Your task to perform on an android device: Open my contact list Image 0: 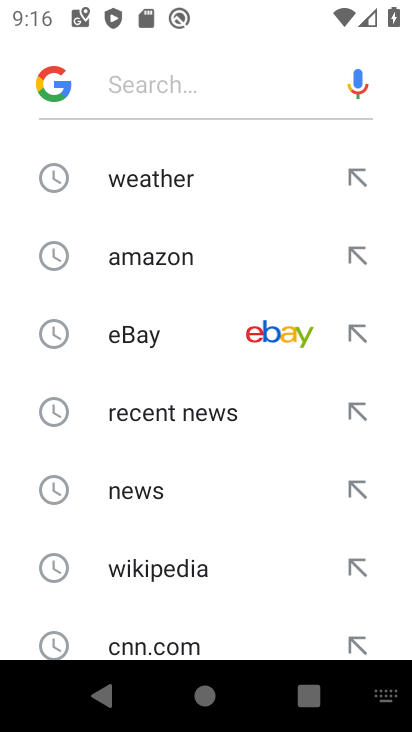
Step 0: press home button
Your task to perform on an android device: Open my contact list Image 1: 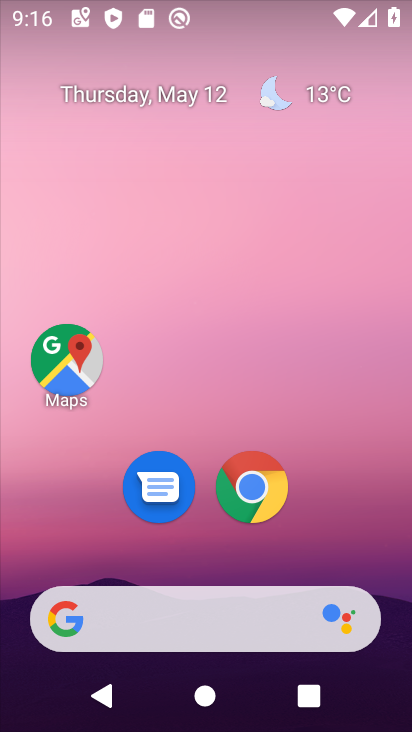
Step 1: drag from (197, 556) to (240, 179)
Your task to perform on an android device: Open my contact list Image 2: 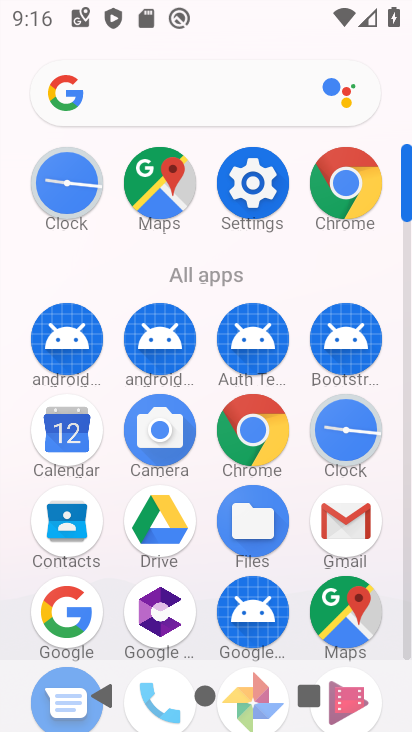
Step 2: drag from (204, 632) to (289, 192)
Your task to perform on an android device: Open my contact list Image 3: 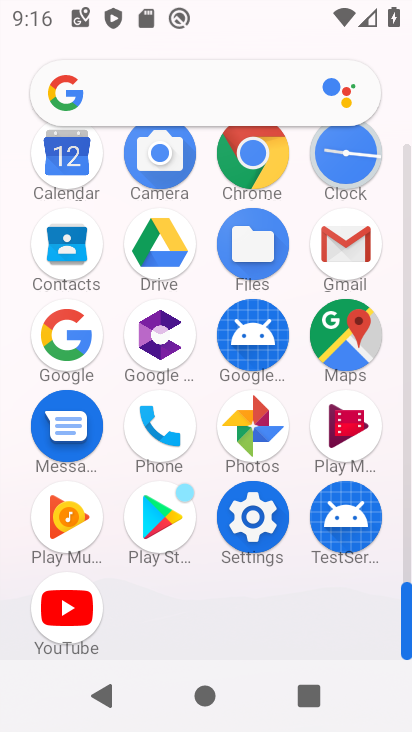
Step 3: click (180, 437)
Your task to perform on an android device: Open my contact list Image 4: 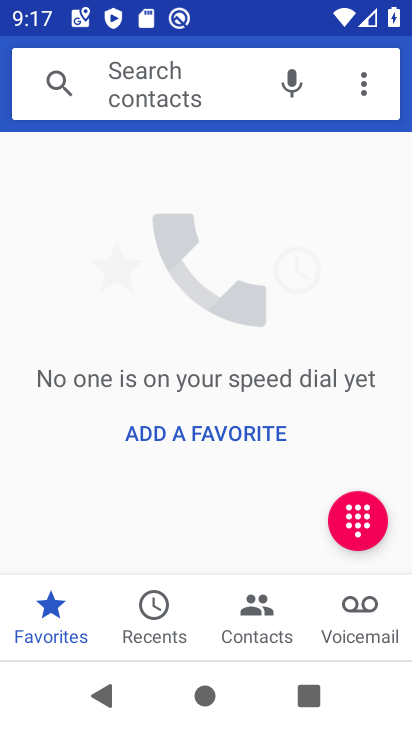
Step 4: task complete